Your task to perform on an android device: Search for Mexican restaurants on Maps Image 0: 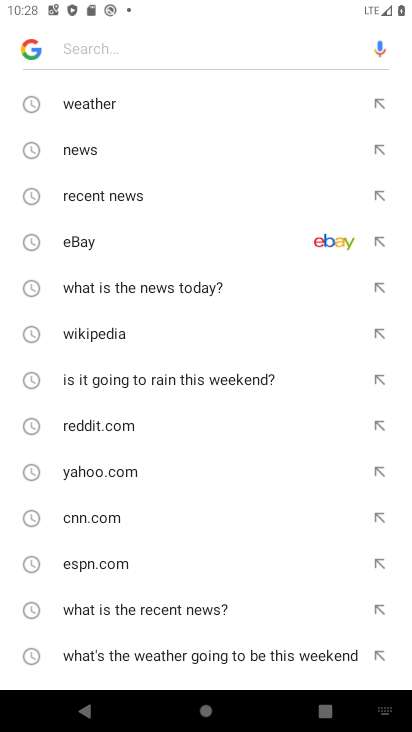
Step 0: press home button
Your task to perform on an android device: Search for Mexican restaurants on Maps Image 1: 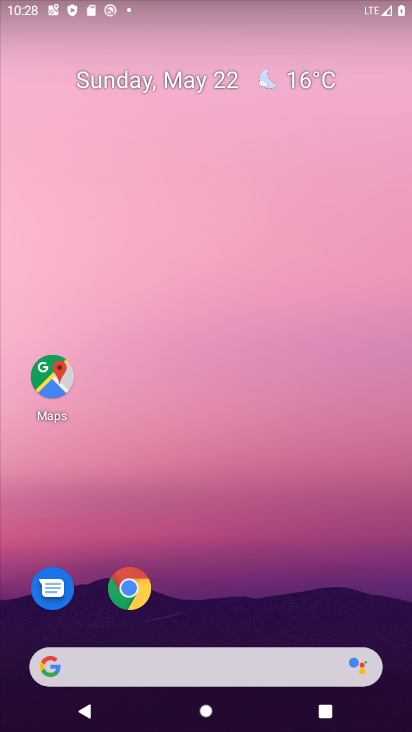
Step 1: click (58, 384)
Your task to perform on an android device: Search for Mexican restaurants on Maps Image 2: 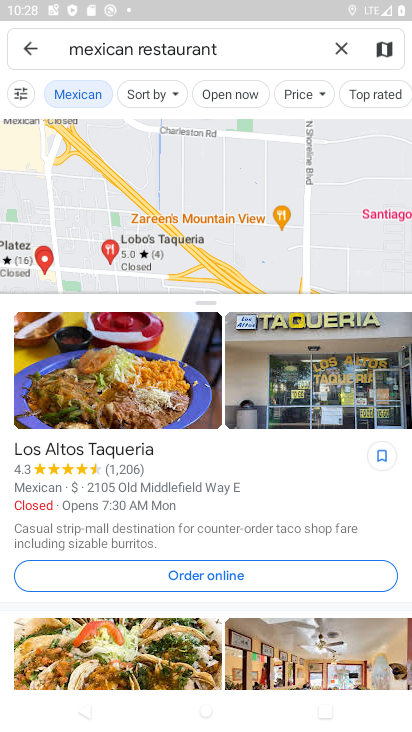
Step 2: task complete